Your task to perform on an android device: delete location history Image 0: 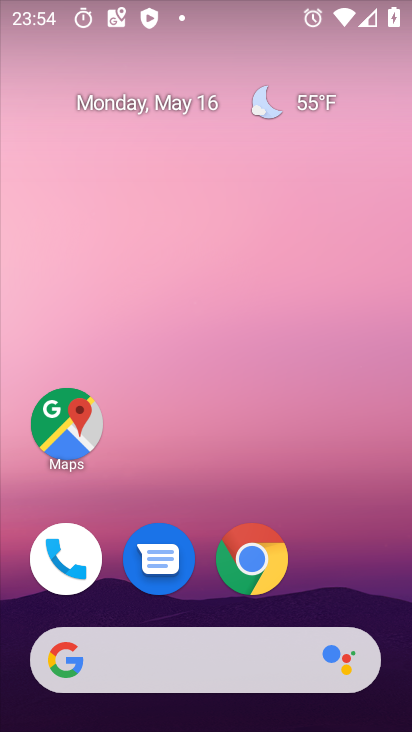
Step 0: drag from (320, 305) to (290, 59)
Your task to perform on an android device: delete location history Image 1: 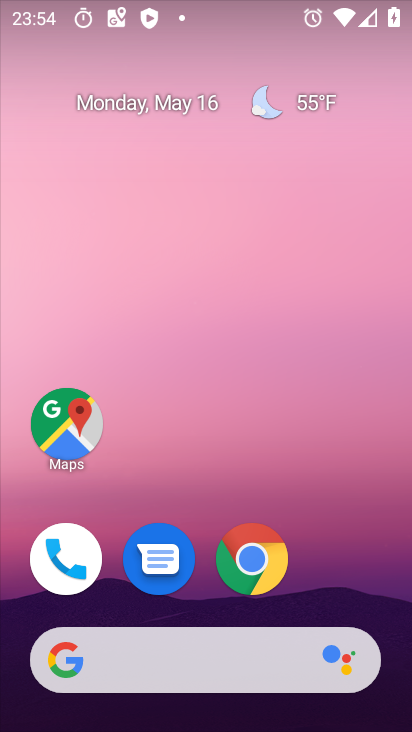
Step 1: drag from (314, 475) to (310, 78)
Your task to perform on an android device: delete location history Image 2: 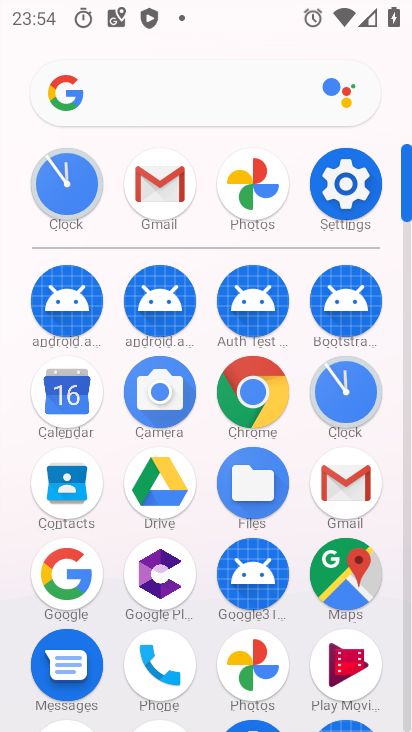
Step 2: click (351, 575)
Your task to perform on an android device: delete location history Image 3: 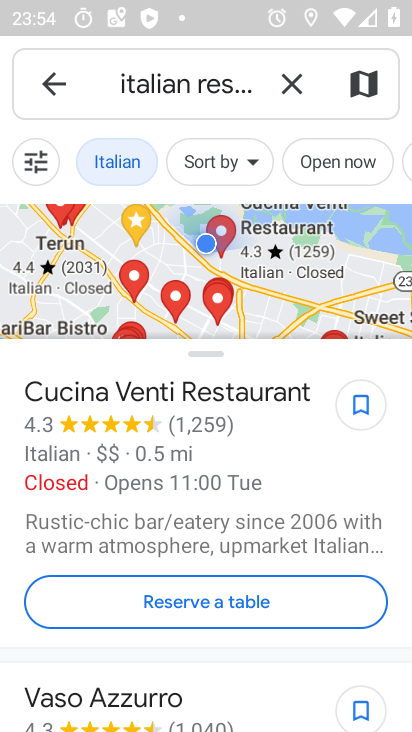
Step 3: click (60, 83)
Your task to perform on an android device: delete location history Image 4: 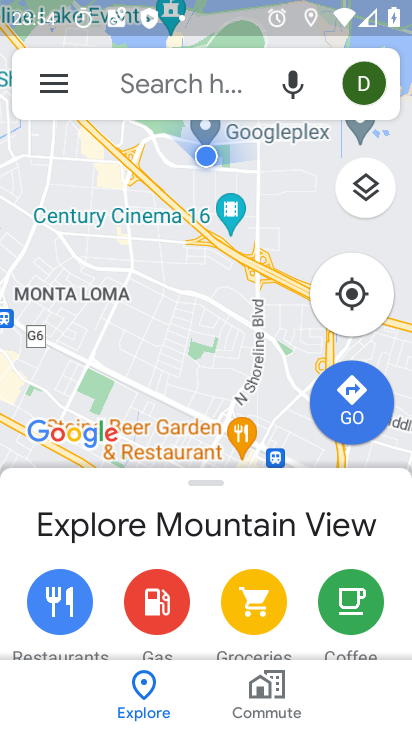
Step 4: click (57, 84)
Your task to perform on an android device: delete location history Image 5: 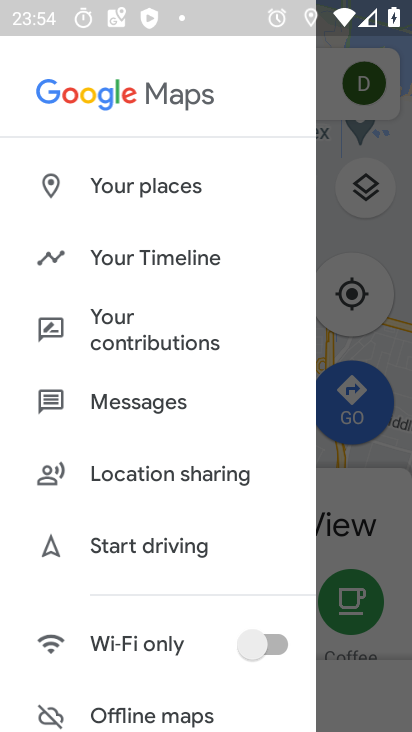
Step 5: drag from (163, 613) to (206, 64)
Your task to perform on an android device: delete location history Image 6: 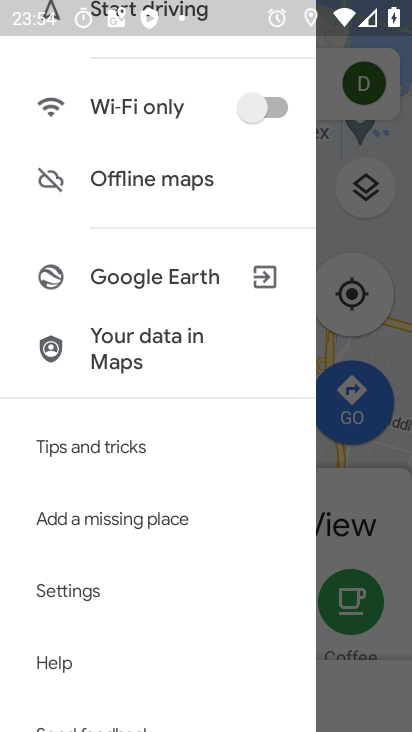
Step 6: click (82, 592)
Your task to perform on an android device: delete location history Image 7: 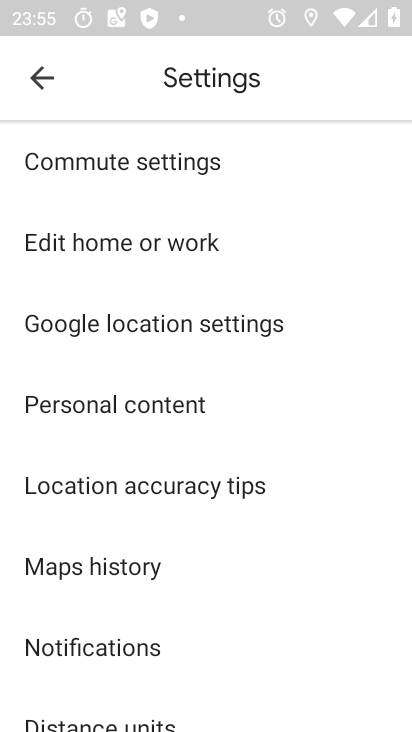
Step 7: click (94, 563)
Your task to perform on an android device: delete location history Image 8: 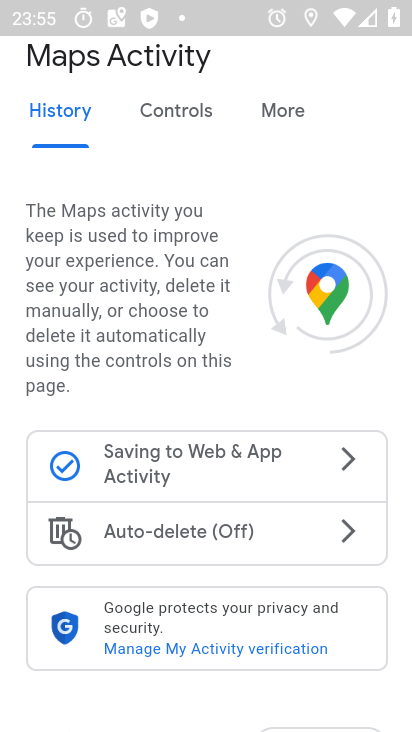
Step 8: drag from (298, 554) to (283, 70)
Your task to perform on an android device: delete location history Image 9: 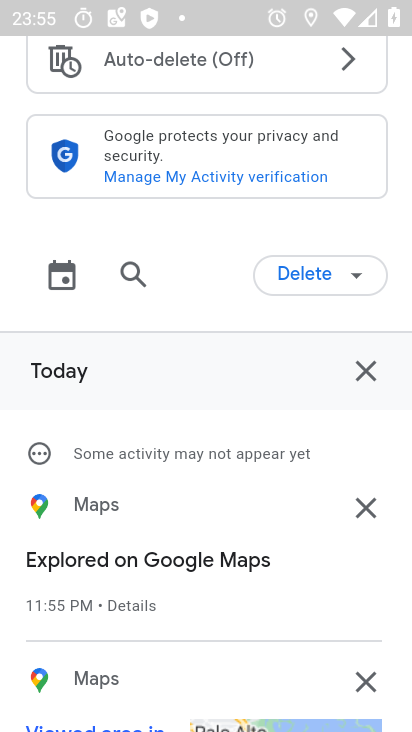
Step 9: click (322, 276)
Your task to perform on an android device: delete location history Image 10: 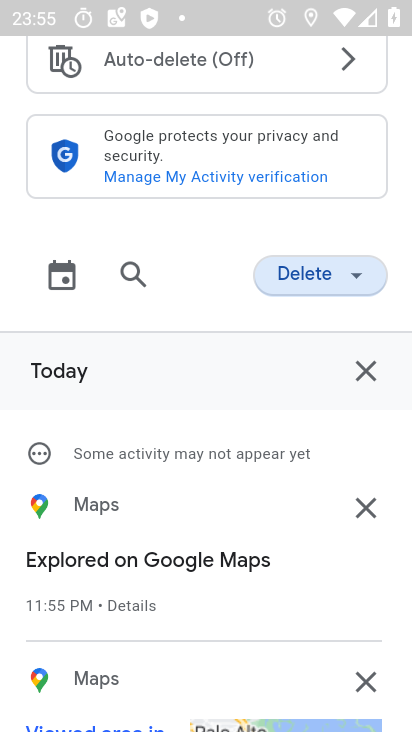
Step 10: click (320, 274)
Your task to perform on an android device: delete location history Image 11: 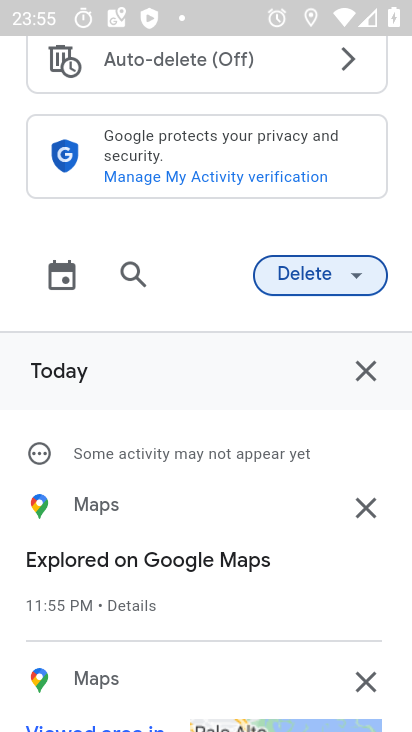
Step 11: click (338, 269)
Your task to perform on an android device: delete location history Image 12: 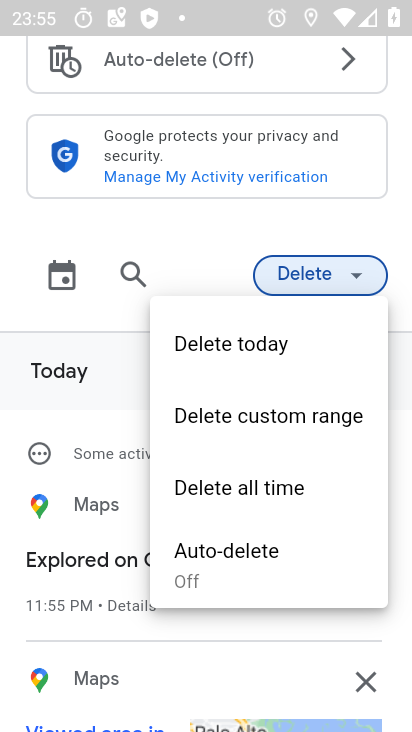
Step 12: click (292, 489)
Your task to perform on an android device: delete location history Image 13: 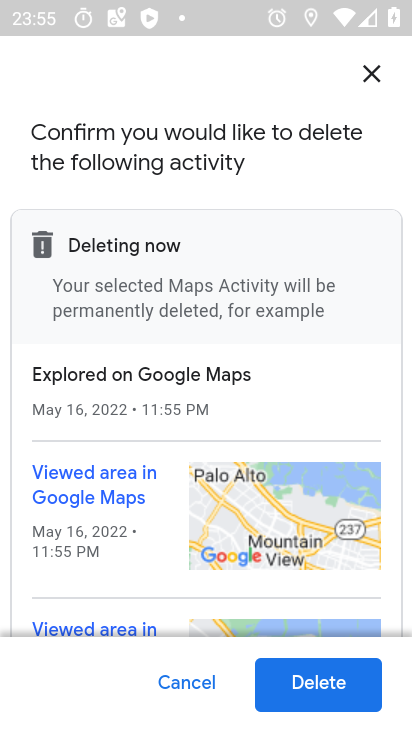
Step 13: click (363, 703)
Your task to perform on an android device: delete location history Image 14: 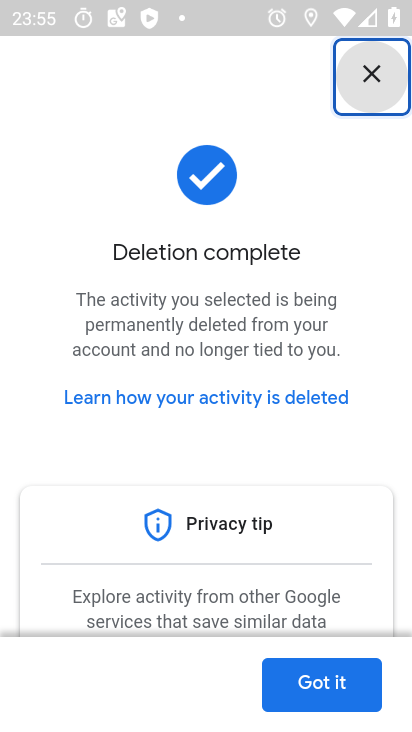
Step 14: task complete